Your task to perform on an android device: Is it going to rain tomorrow? Image 0: 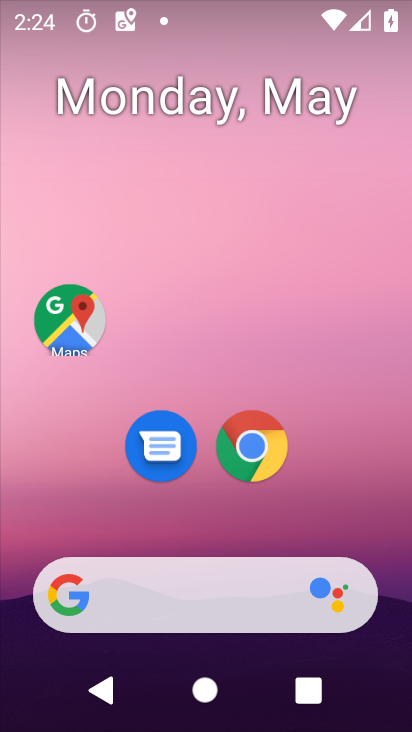
Step 0: drag from (35, 207) to (332, 115)
Your task to perform on an android device: Is it going to rain tomorrow? Image 1: 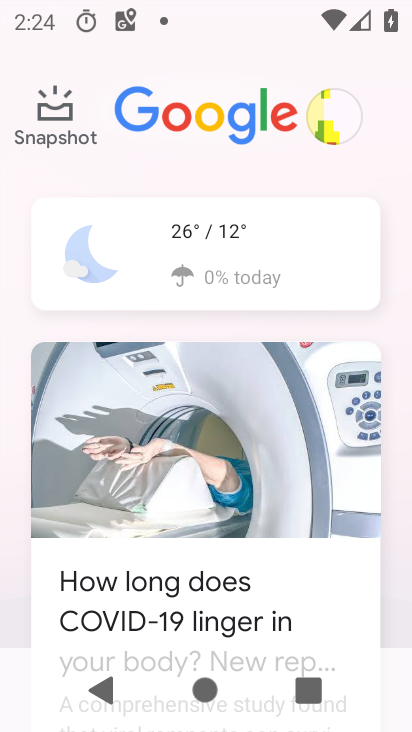
Step 1: click (93, 266)
Your task to perform on an android device: Is it going to rain tomorrow? Image 2: 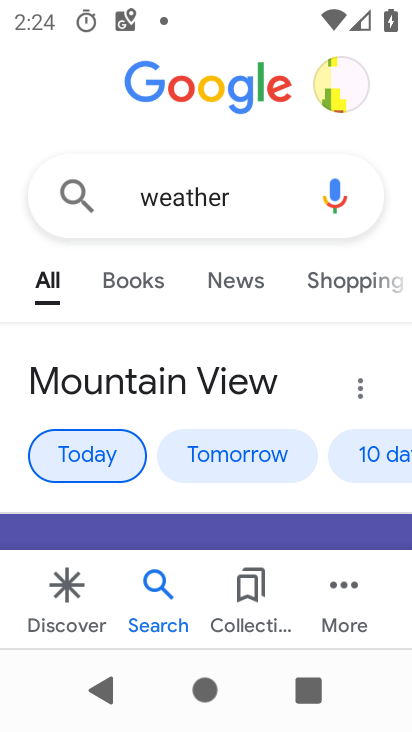
Step 2: drag from (154, 504) to (151, 106)
Your task to perform on an android device: Is it going to rain tomorrow? Image 3: 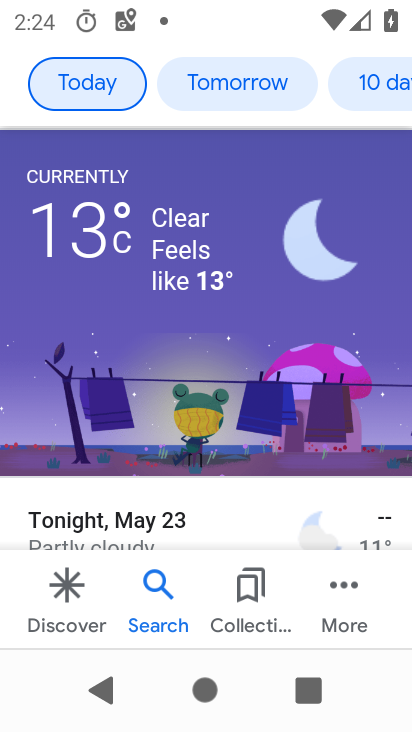
Step 3: click (218, 85)
Your task to perform on an android device: Is it going to rain tomorrow? Image 4: 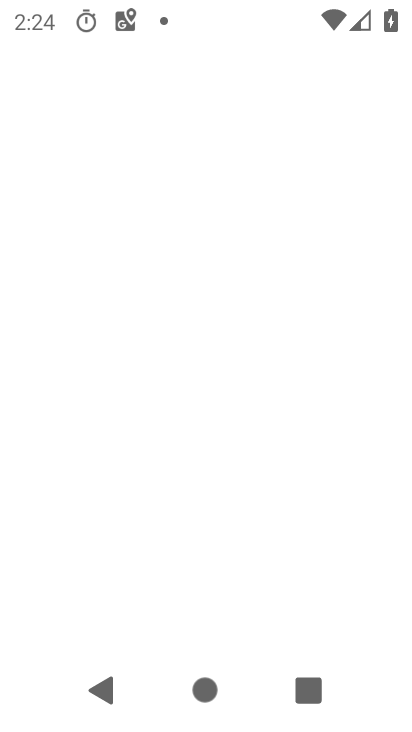
Step 4: task complete